Your task to perform on an android device: Open calendar and show me the fourth week of next month Image 0: 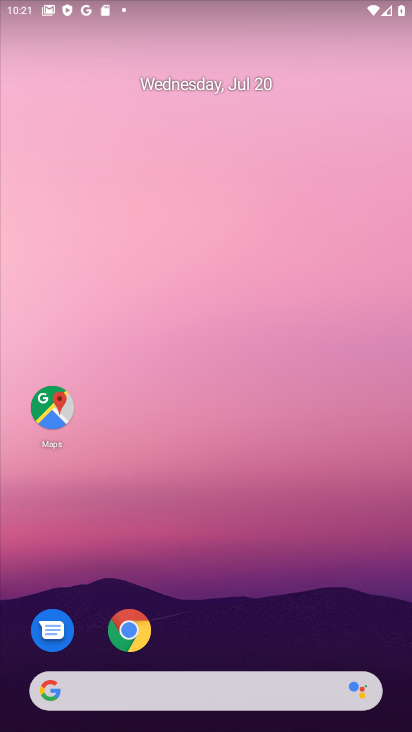
Step 0: click (239, 348)
Your task to perform on an android device: Open calendar and show me the fourth week of next month Image 1: 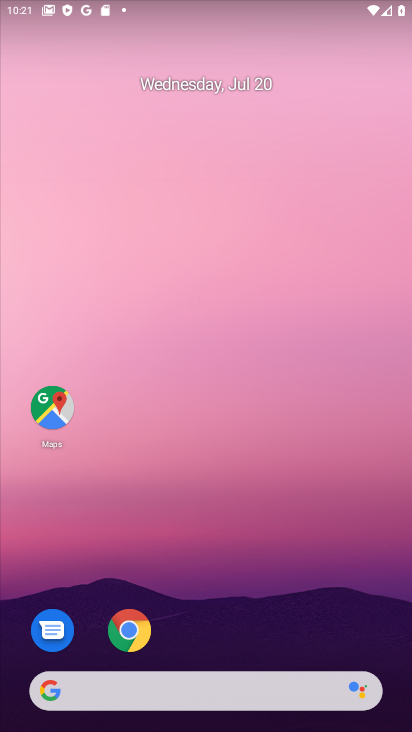
Step 1: drag from (201, 600) to (206, 45)
Your task to perform on an android device: Open calendar and show me the fourth week of next month Image 2: 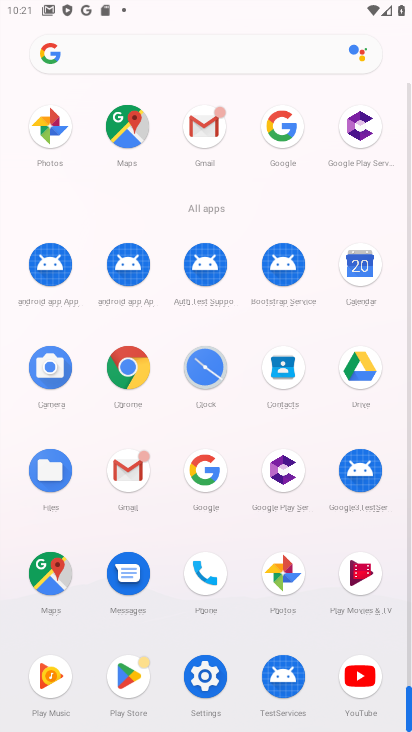
Step 2: click (356, 282)
Your task to perform on an android device: Open calendar and show me the fourth week of next month Image 3: 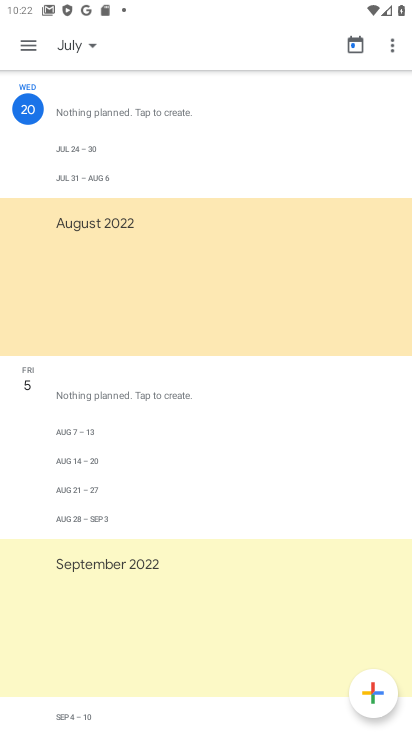
Step 3: click (69, 51)
Your task to perform on an android device: Open calendar and show me the fourth week of next month Image 4: 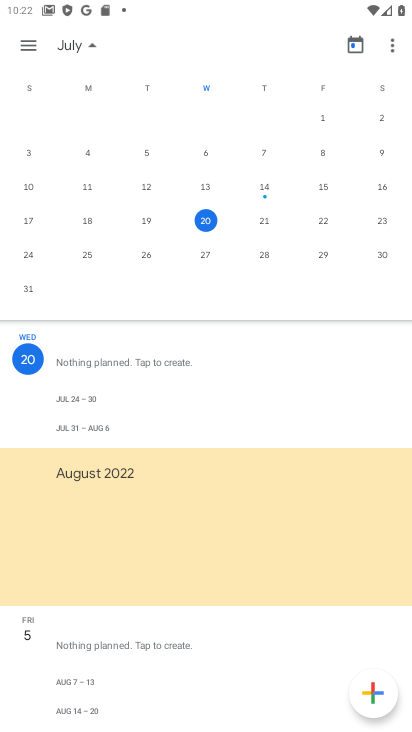
Step 4: drag from (184, 425) to (200, 105)
Your task to perform on an android device: Open calendar and show me the fourth week of next month Image 5: 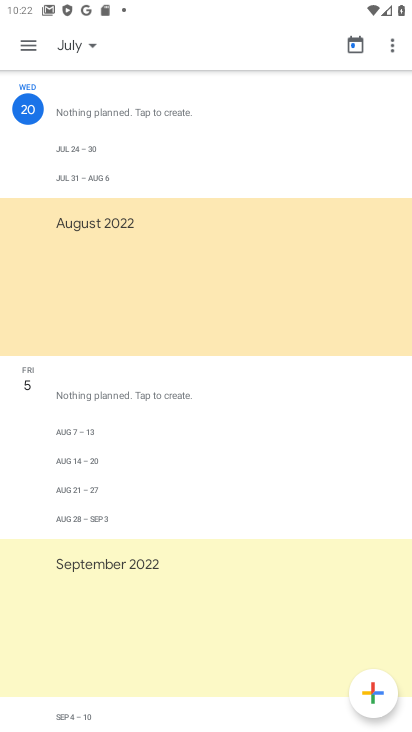
Step 5: click (74, 45)
Your task to perform on an android device: Open calendar and show me the fourth week of next month Image 6: 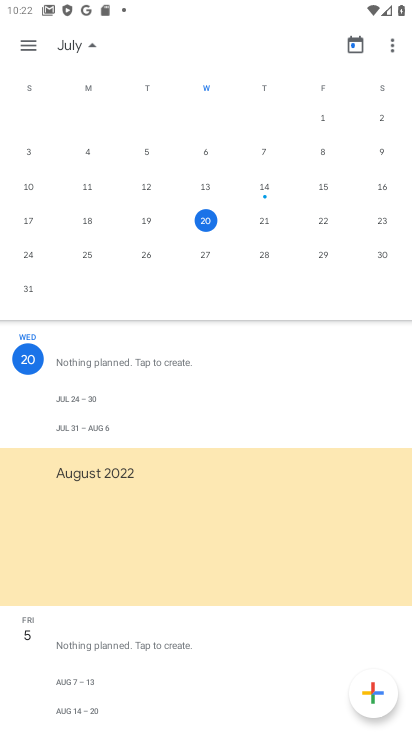
Step 6: drag from (350, 209) to (23, 258)
Your task to perform on an android device: Open calendar and show me the fourth week of next month Image 7: 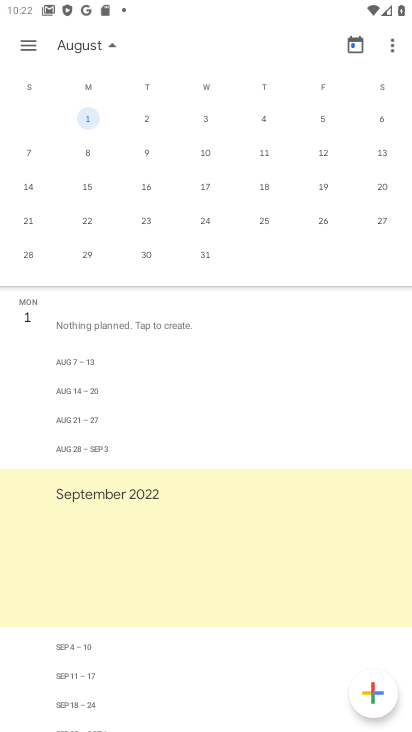
Step 7: click (321, 221)
Your task to perform on an android device: Open calendar and show me the fourth week of next month Image 8: 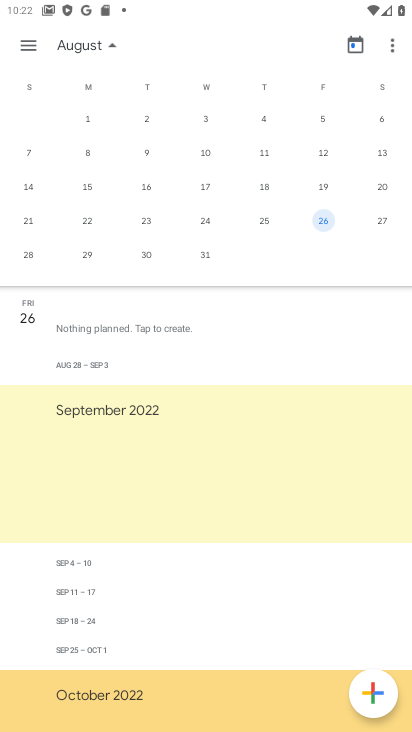
Step 8: task complete